Your task to perform on an android device: change the clock display to show seconds Image 0: 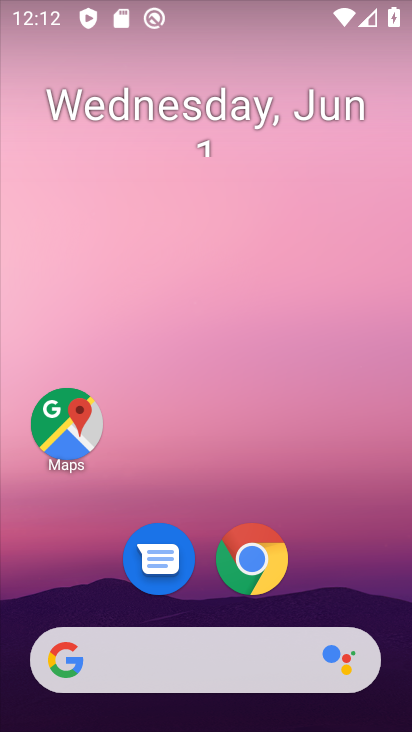
Step 0: drag from (297, 529) to (302, 241)
Your task to perform on an android device: change the clock display to show seconds Image 1: 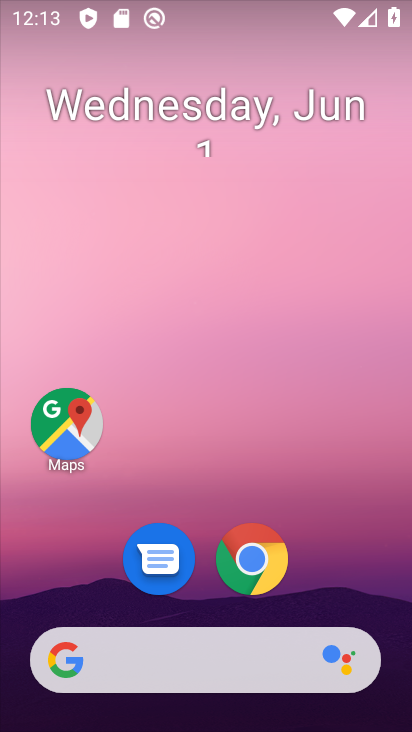
Step 1: drag from (194, 609) to (207, 235)
Your task to perform on an android device: change the clock display to show seconds Image 2: 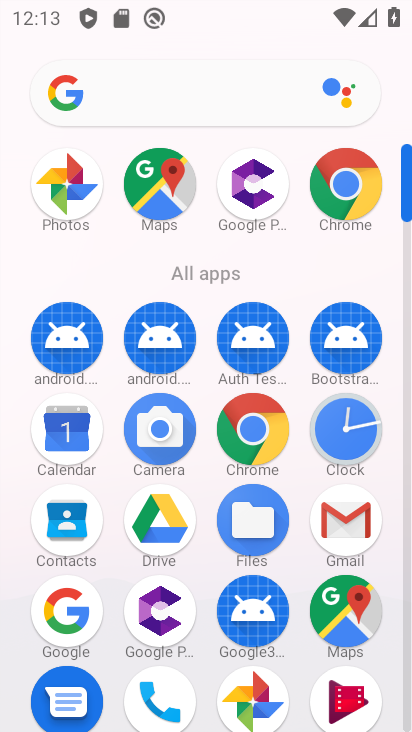
Step 2: drag from (197, 558) to (207, 418)
Your task to perform on an android device: change the clock display to show seconds Image 3: 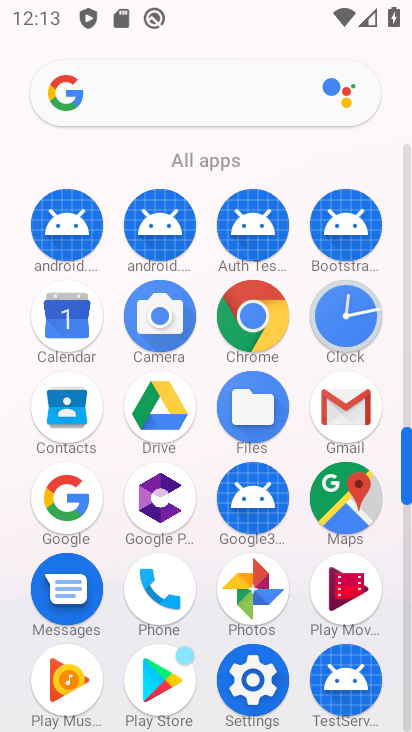
Step 3: click (349, 308)
Your task to perform on an android device: change the clock display to show seconds Image 4: 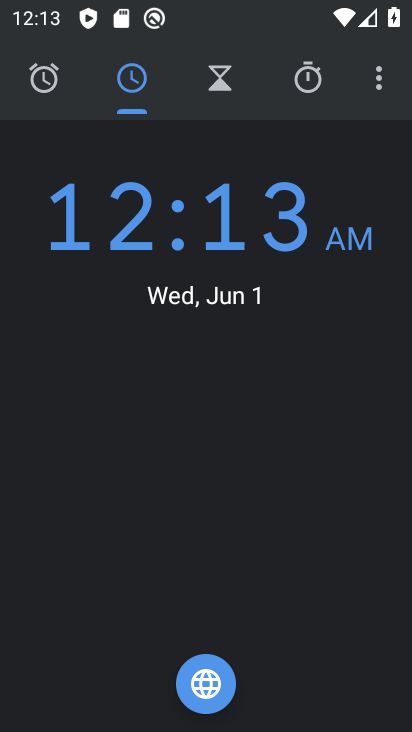
Step 4: click (381, 63)
Your task to perform on an android device: change the clock display to show seconds Image 5: 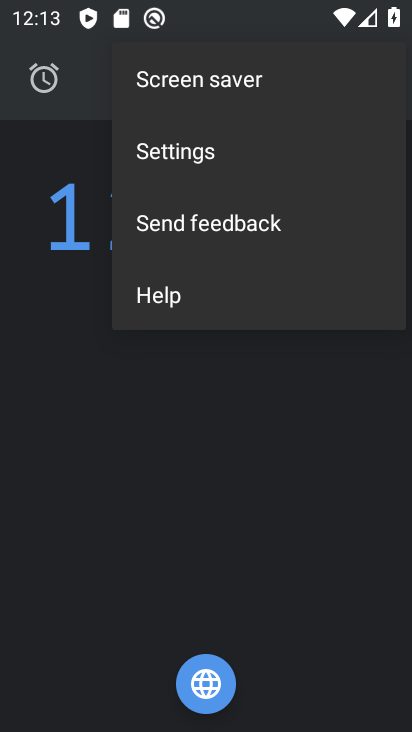
Step 5: click (181, 155)
Your task to perform on an android device: change the clock display to show seconds Image 6: 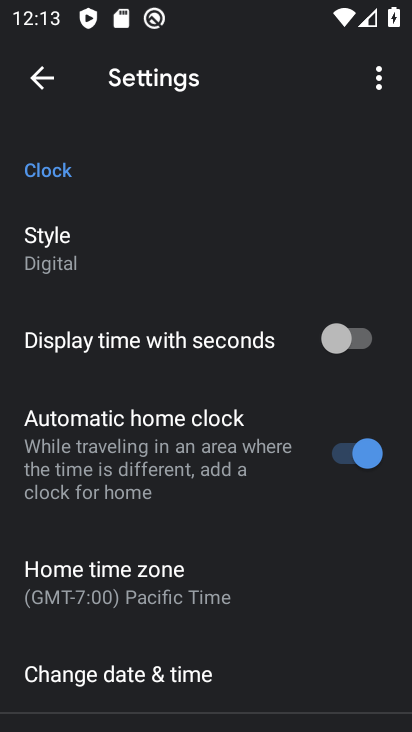
Step 6: drag from (236, 657) to (257, 483)
Your task to perform on an android device: change the clock display to show seconds Image 7: 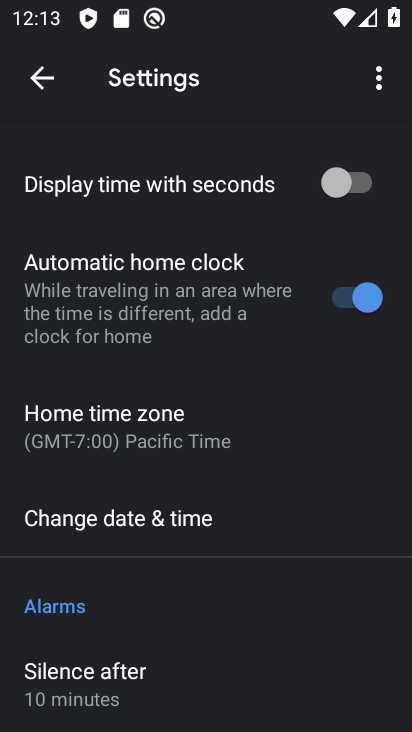
Step 7: click (333, 185)
Your task to perform on an android device: change the clock display to show seconds Image 8: 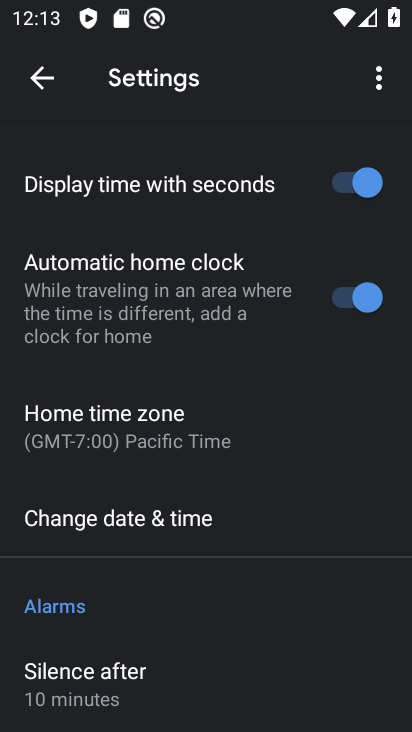
Step 8: task complete